Your task to perform on an android device: change the upload size in google photos Image 0: 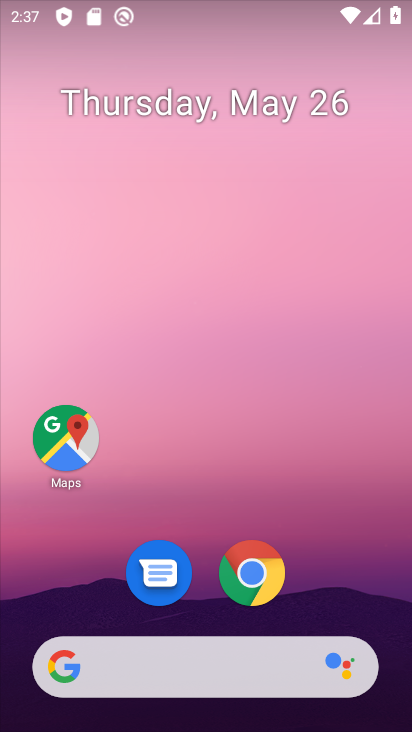
Step 0: drag from (174, 679) to (270, 75)
Your task to perform on an android device: change the upload size in google photos Image 1: 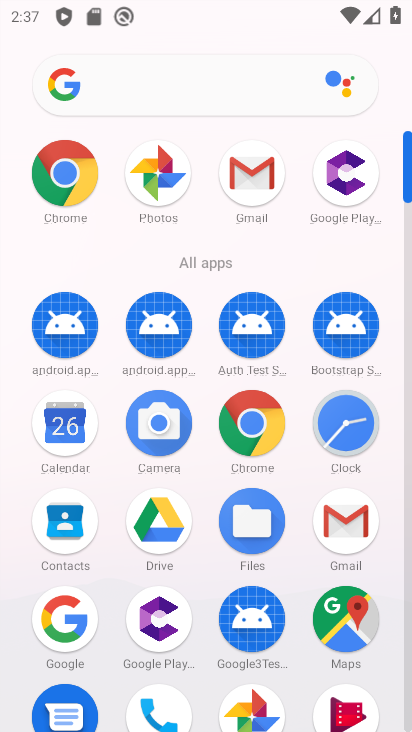
Step 1: click (236, 698)
Your task to perform on an android device: change the upload size in google photos Image 2: 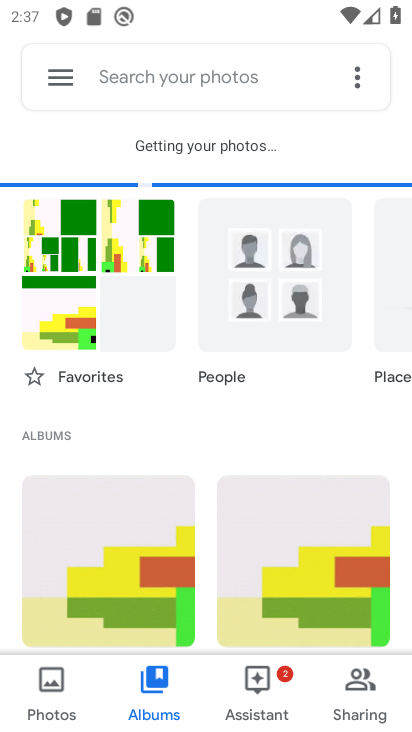
Step 2: click (53, 84)
Your task to perform on an android device: change the upload size in google photos Image 3: 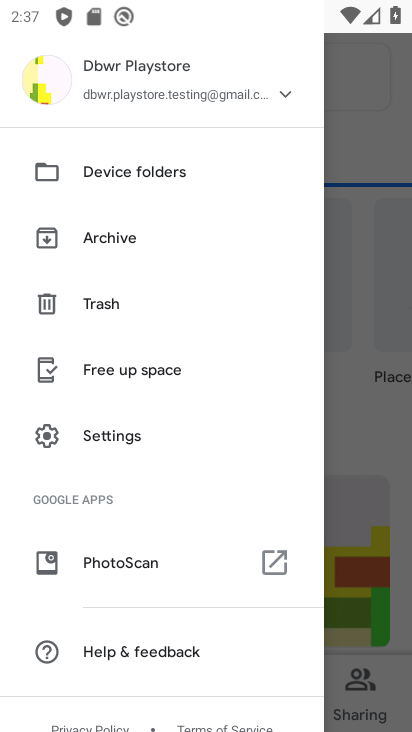
Step 3: click (91, 443)
Your task to perform on an android device: change the upload size in google photos Image 4: 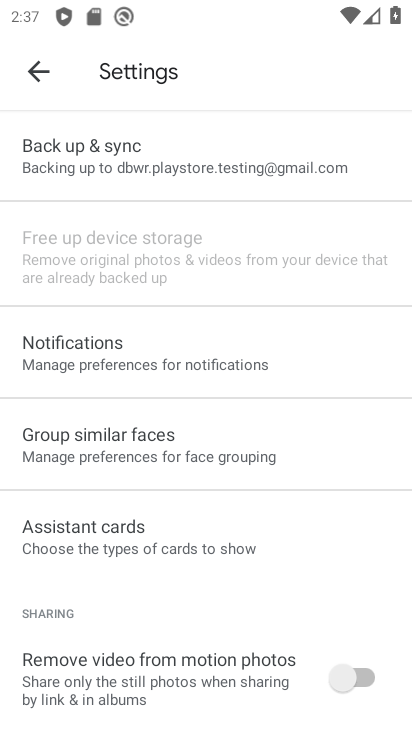
Step 4: click (193, 126)
Your task to perform on an android device: change the upload size in google photos Image 5: 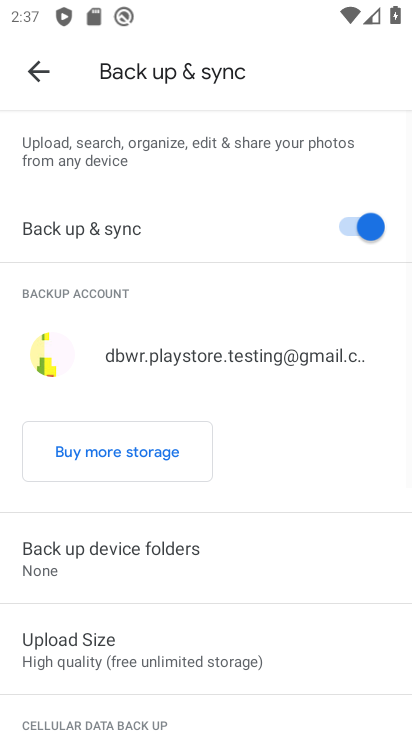
Step 5: click (201, 651)
Your task to perform on an android device: change the upload size in google photos Image 6: 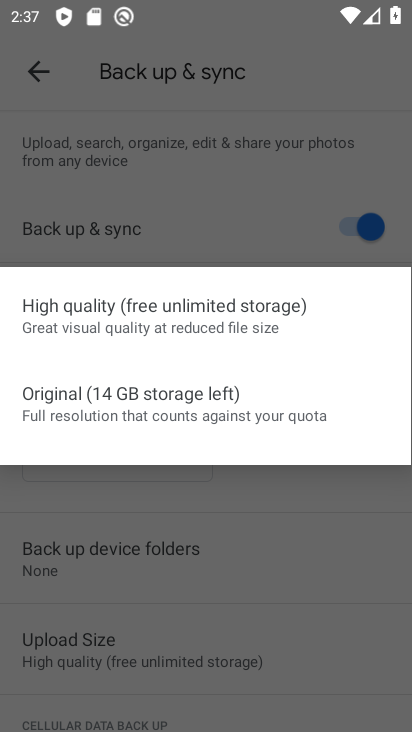
Step 6: click (168, 396)
Your task to perform on an android device: change the upload size in google photos Image 7: 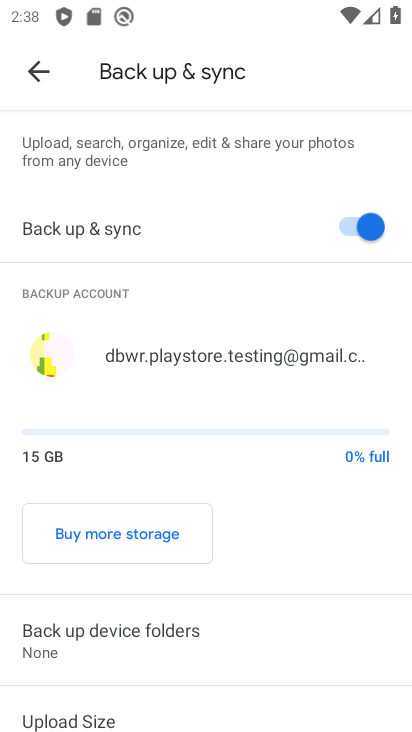
Step 7: task complete